Your task to perform on an android device: Go to Wikipedia Image 0: 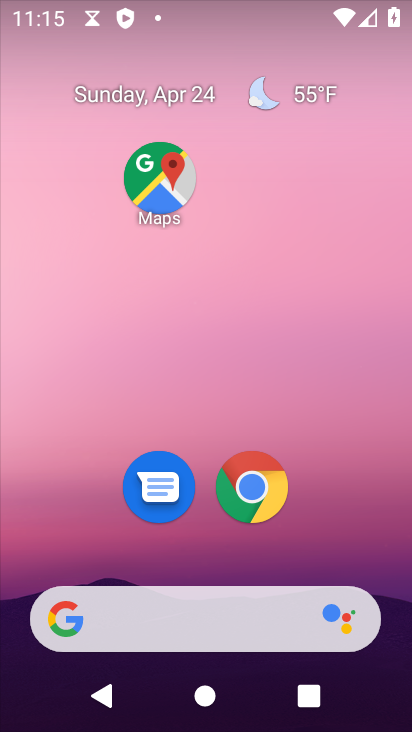
Step 0: click (246, 476)
Your task to perform on an android device: Go to Wikipedia Image 1: 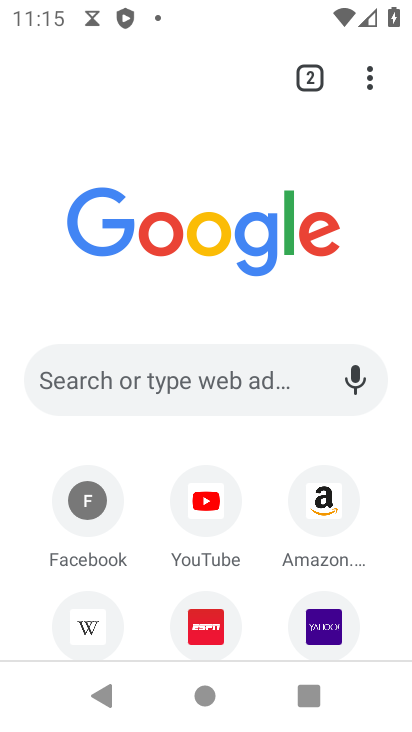
Step 1: click (84, 642)
Your task to perform on an android device: Go to Wikipedia Image 2: 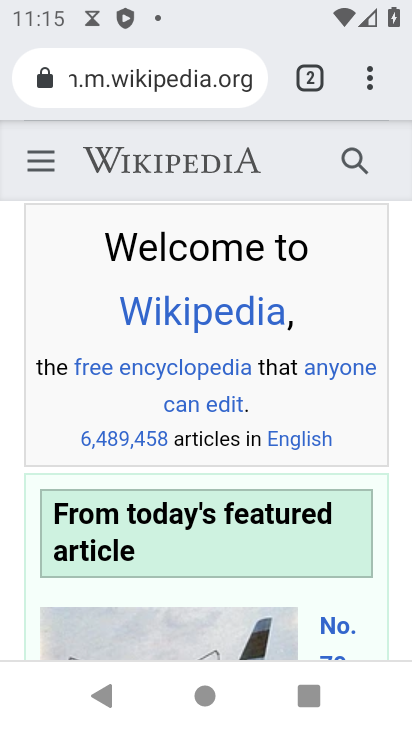
Step 2: task complete